Your task to perform on an android device: see tabs open on other devices in the chrome app Image 0: 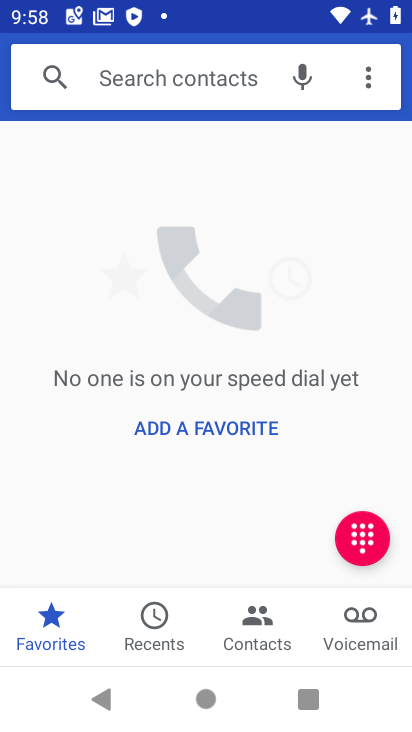
Step 0: press home button
Your task to perform on an android device: see tabs open on other devices in the chrome app Image 1: 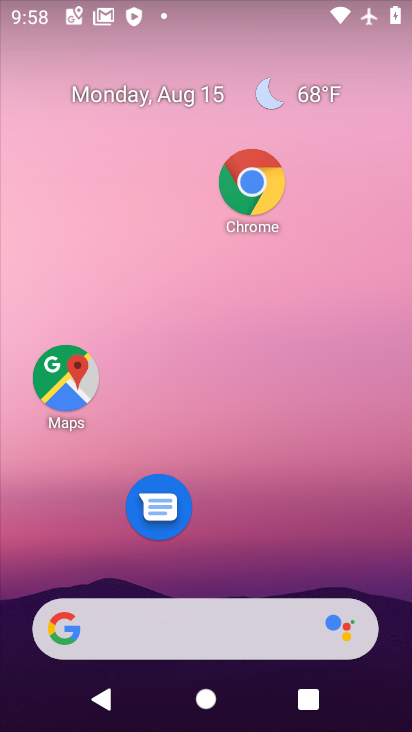
Step 1: click (226, 212)
Your task to perform on an android device: see tabs open on other devices in the chrome app Image 2: 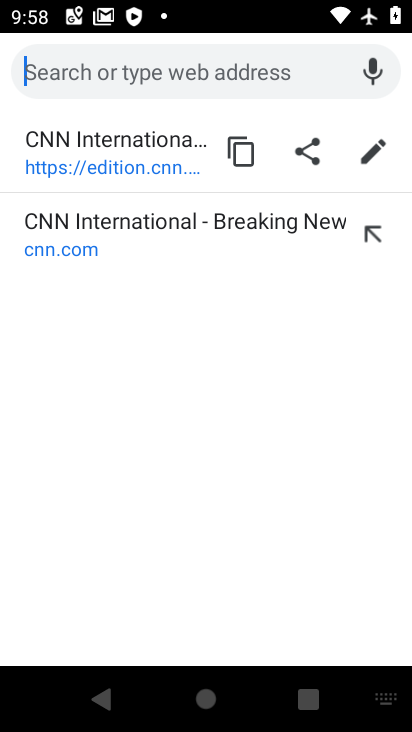
Step 2: task complete